Your task to perform on an android device: turn notification dots on Image 0: 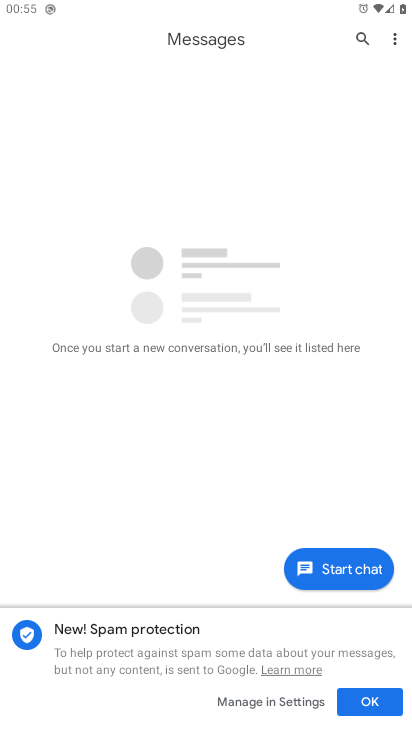
Step 0: press home button
Your task to perform on an android device: turn notification dots on Image 1: 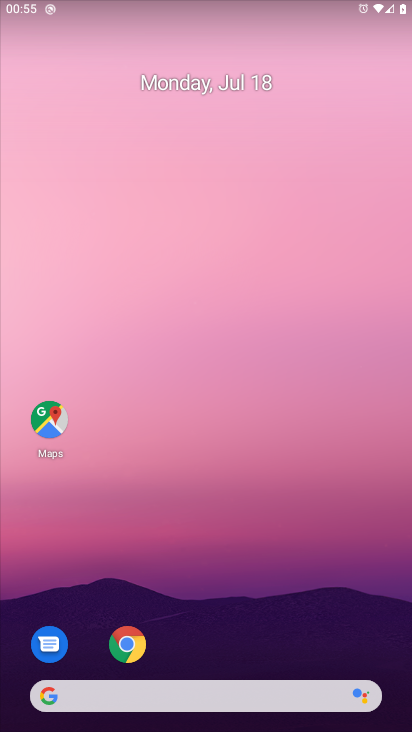
Step 1: press home button
Your task to perform on an android device: turn notification dots on Image 2: 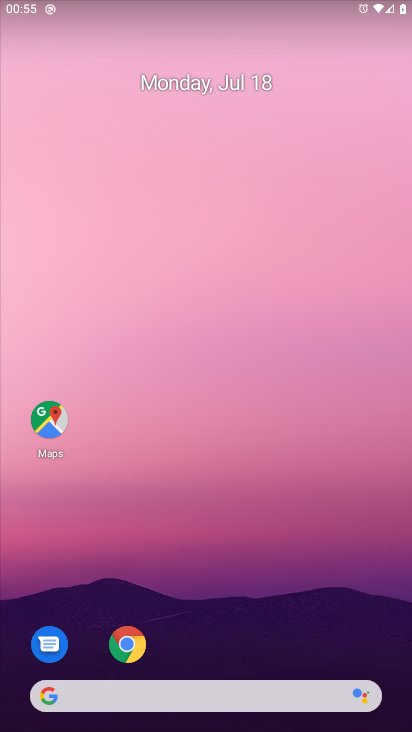
Step 2: drag from (342, 607) to (322, 91)
Your task to perform on an android device: turn notification dots on Image 3: 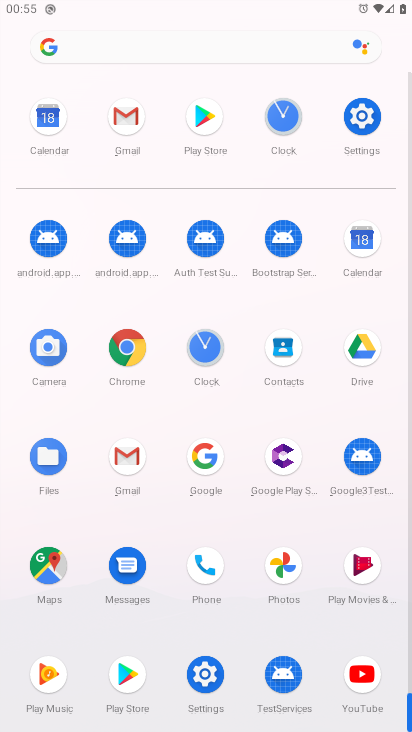
Step 3: click (363, 118)
Your task to perform on an android device: turn notification dots on Image 4: 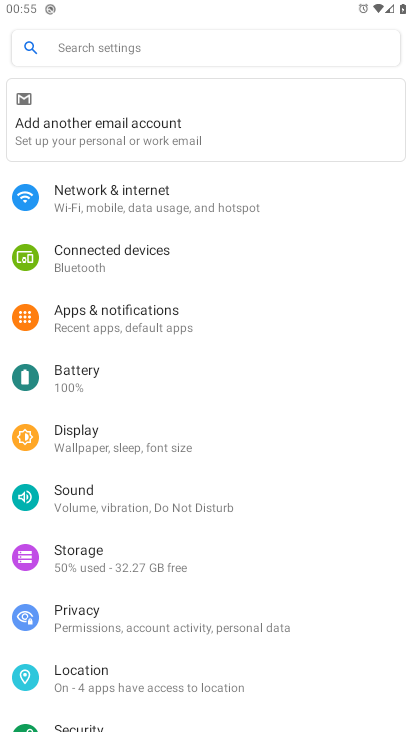
Step 4: click (131, 308)
Your task to perform on an android device: turn notification dots on Image 5: 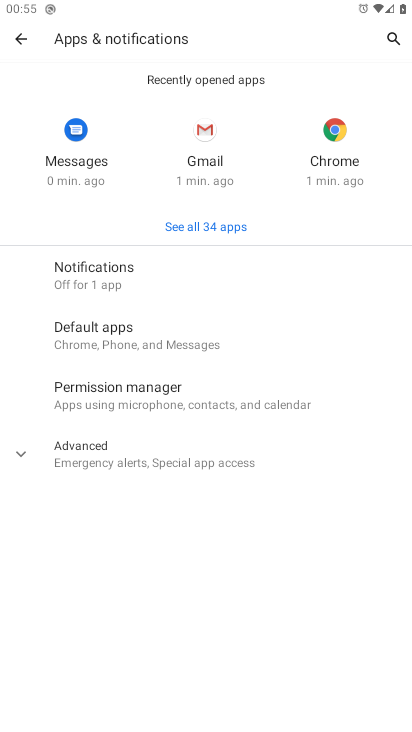
Step 5: click (121, 270)
Your task to perform on an android device: turn notification dots on Image 6: 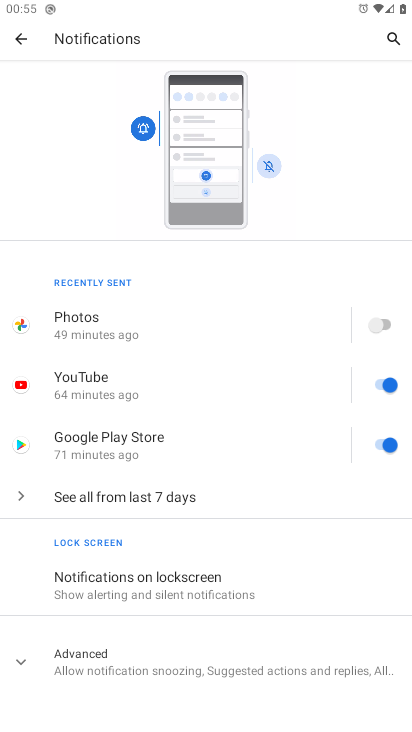
Step 6: click (18, 654)
Your task to perform on an android device: turn notification dots on Image 7: 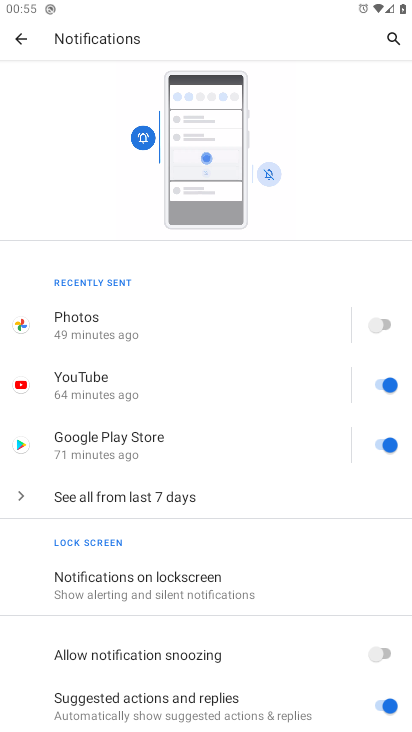
Step 7: drag from (305, 526) to (330, 216)
Your task to perform on an android device: turn notification dots on Image 8: 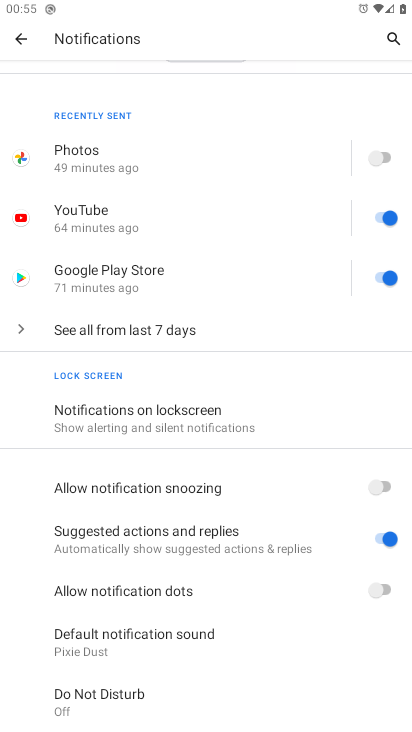
Step 8: click (380, 580)
Your task to perform on an android device: turn notification dots on Image 9: 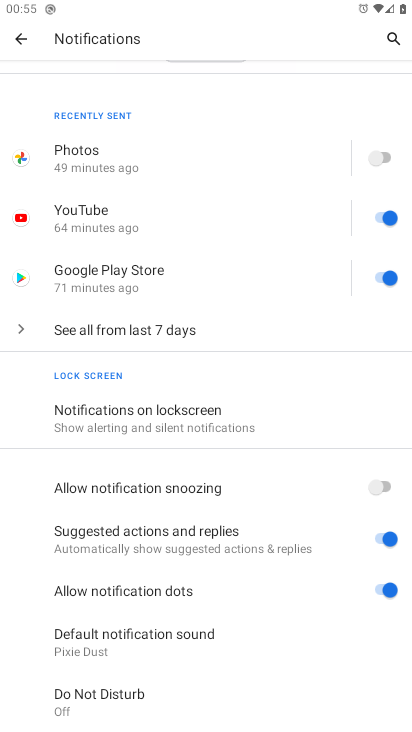
Step 9: task complete